Your task to perform on an android device: open a bookmark in the chrome app Image 0: 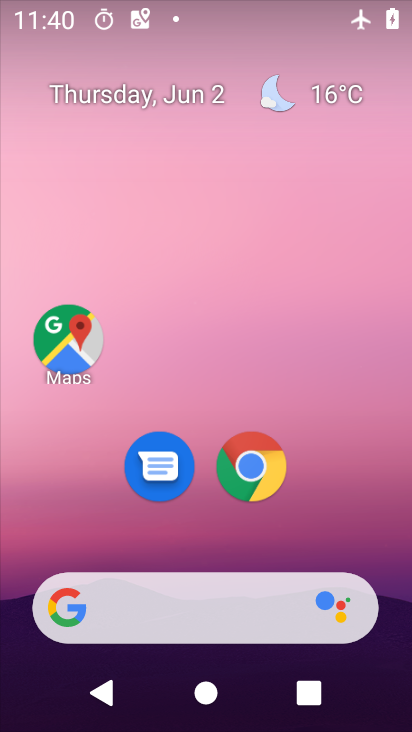
Step 0: click (257, 458)
Your task to perform on an android device: open a bookmark in the chrome app Image 1: 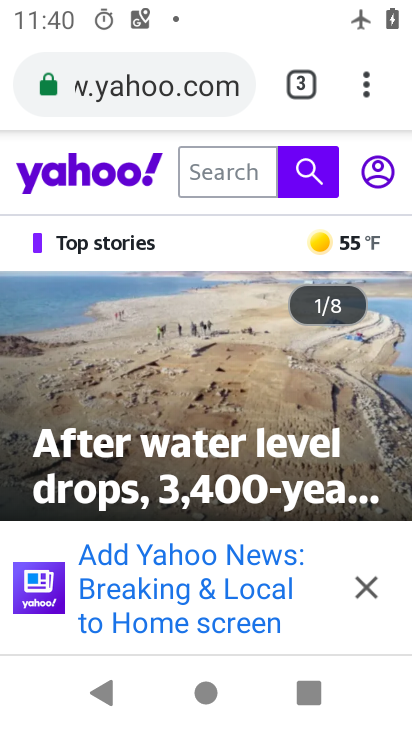
Step 1: click (363, 94)
Your task to perform on an android device: open a bookmark in the chrome app Image 2: 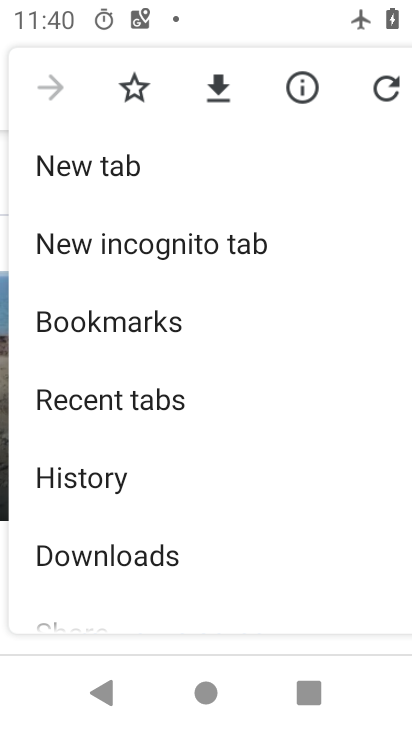
Step 2: click (164, 313)
Your task to perform on an android device: open a bookmark in the chrome app Image 3: 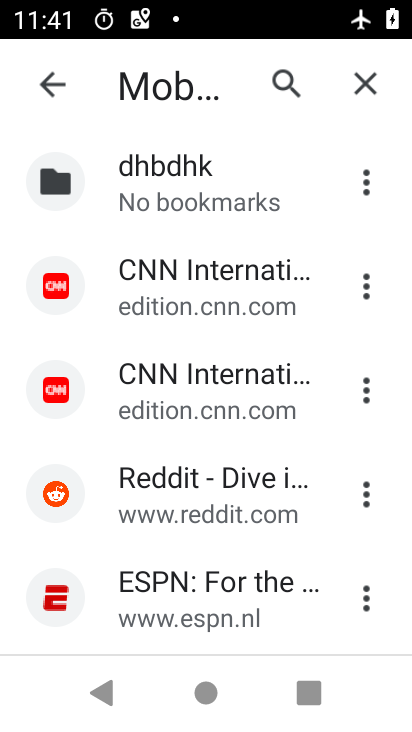
Step 3: click (232, 493)
Your task to perform on an android device: open a bookmark in the chrome app Image 4: 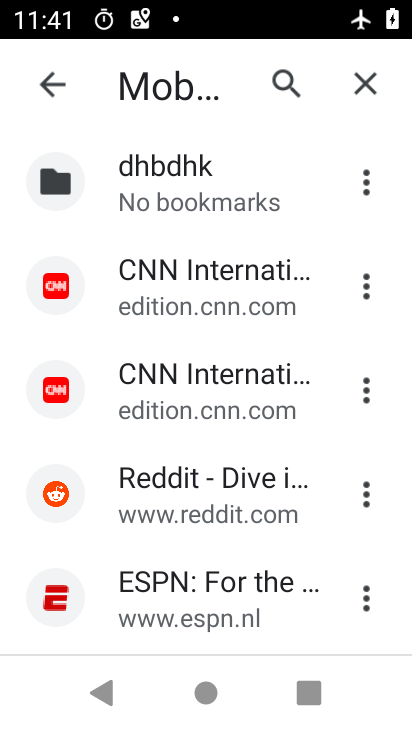
Step 4: click (232, 493)
Your task to perform on an android device: open a bookmark in the chrome app Image 5: 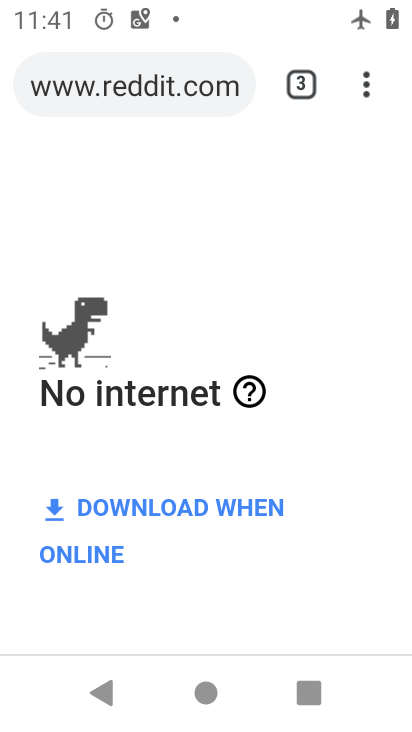
Step 5: task complete